Your task to perform on an android device: turn off sleep mode Image 0: 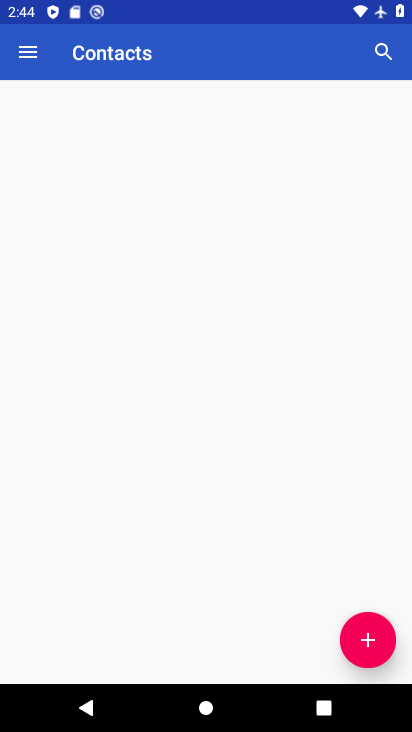
Step 0: press back button
Your task to perform on an android device: turn off sleep mode Image 1: 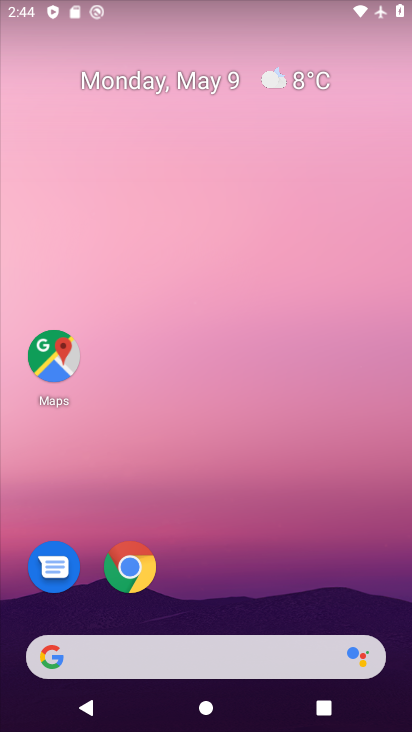
Step 1: drag from (323, 575) to (53, 4)
Your task to perform on an android device: turn off sleep mode Image 2: 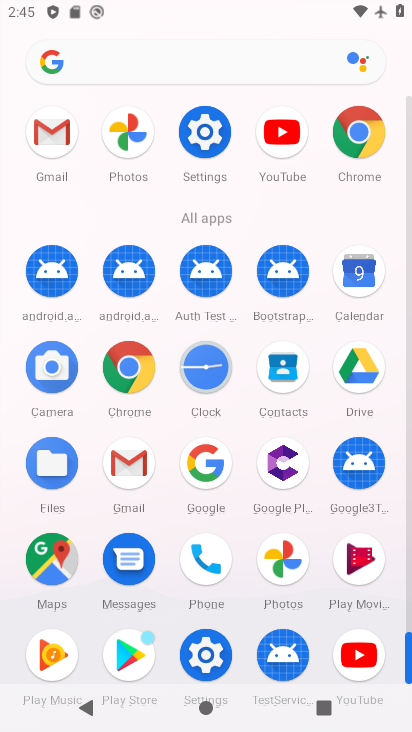
Step 2: drag from (2, 489) to (13, 268)
Your task to perform on an android device: turn off sleep mode Image 3: 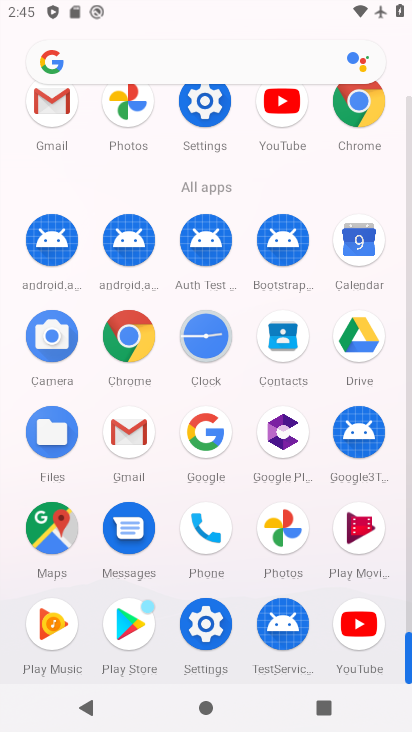
Step 3: click (203, 612)
Your task to perform on an android device: turn off sleep mode Image 4: 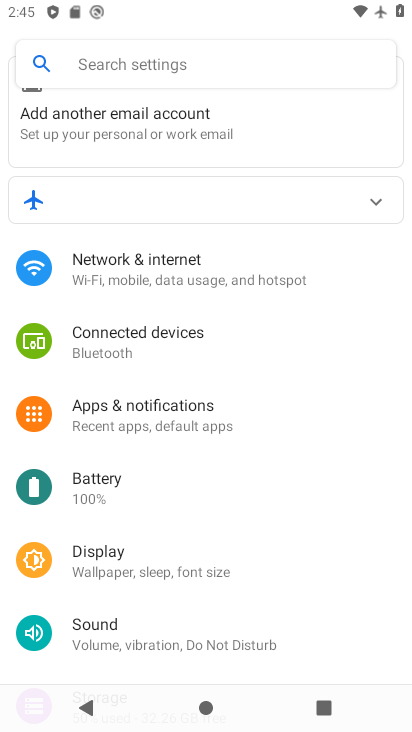
Step 4: drag from (296, 494) to (293, 141)
Your task to perform on an android device: turn off sleep mode Image 5: 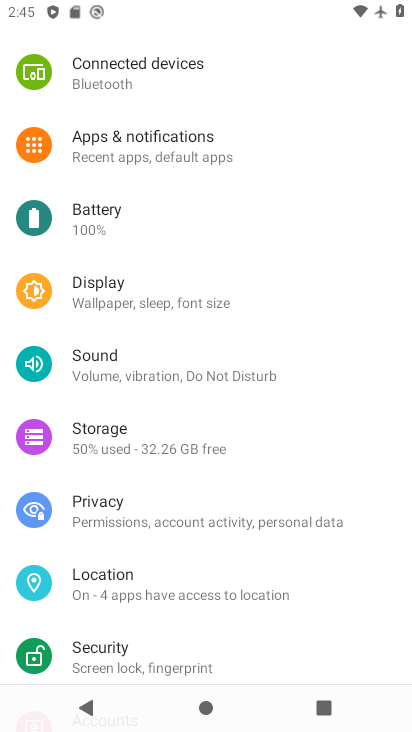
Step 5: drag from (301, 537) to (295, 208)
Your task to perform on an android device: turn off sleep mode Image 6: 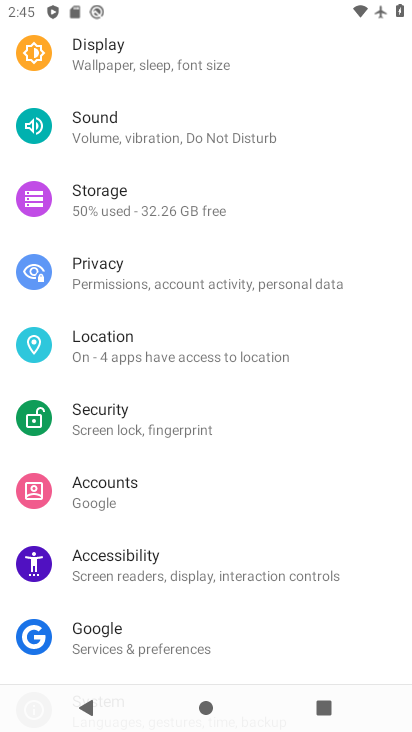
Step 6: drag from (280, 586) to (278, 233)
Your task to perform on an android device: turn off sleep mode Image 7: 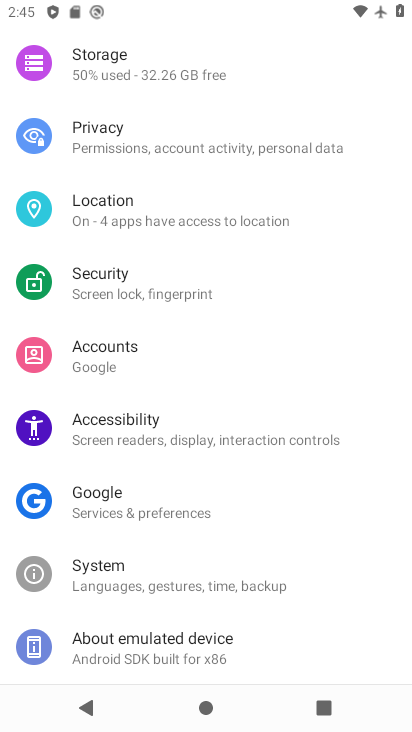
Step 7: drag from (276, 382) to (280, 666)
Your task to perform on an android device: turn off sleep mode Image 8: 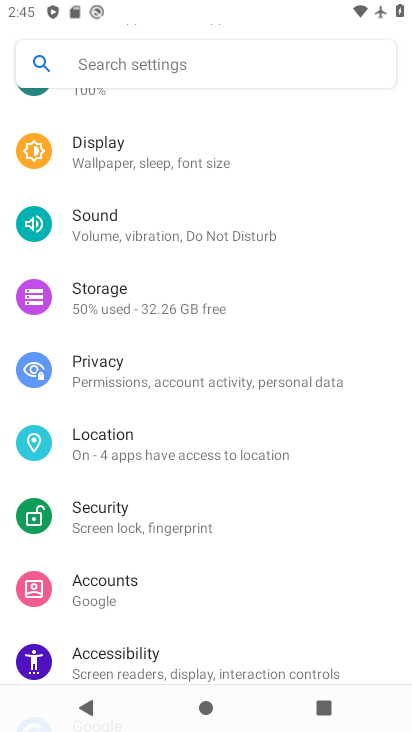
Step 8: click (180, 152)
Your task to perform on an android device: turn off sleep mode Image 9: 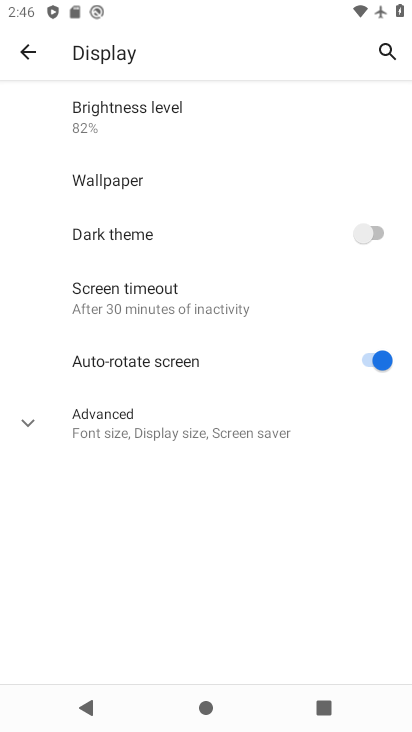
Step 9: click (33, 422)
Your task to perform on an android device: turn off sleep mode Image 10: 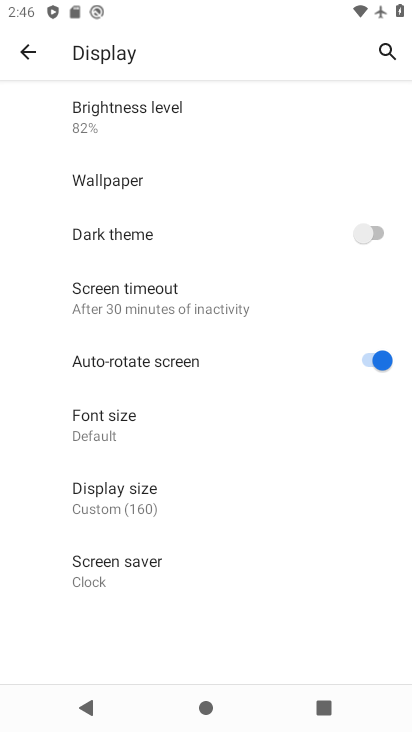
Step 10: task complete